Your task to perform on an android device: toggle javascript in the chrome app Image 0: 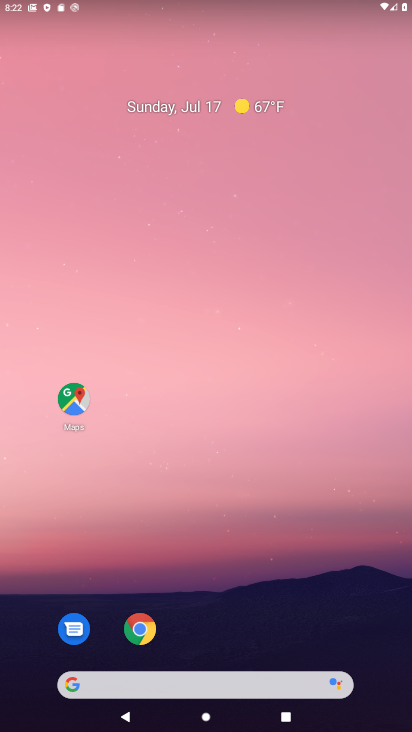
Step 0: click (145, 617)
Your task to perform on an android device: toggle javascript in the chrome app Image 1: 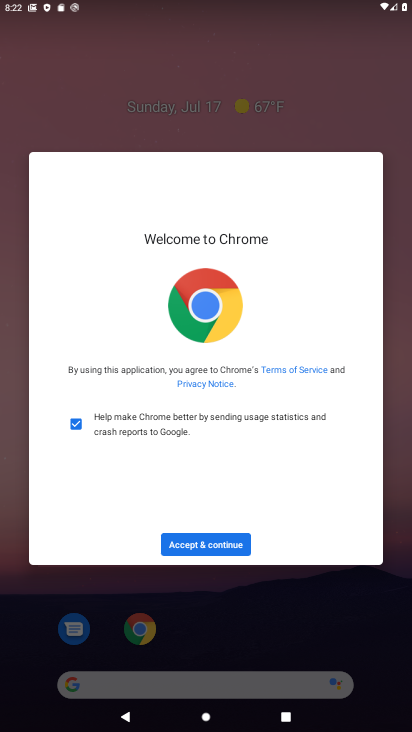
Step 1: click (215, 545)
Your task to perform on an android device: toggle javascript in the chrome app Image 2: 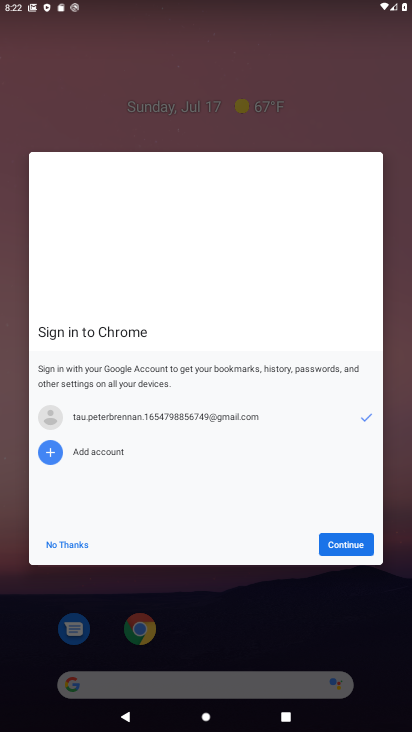
Step 2: click (343, 545)
Your task to perform on an android device: toggle javascript in the chrome app Image 3: 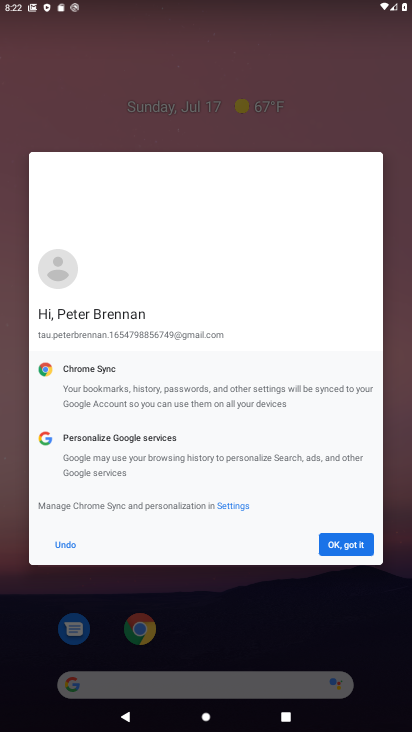
Step 3: click (343, 545)
Your task to perform on an android device: toggle javascript in the chrome app Image 4: 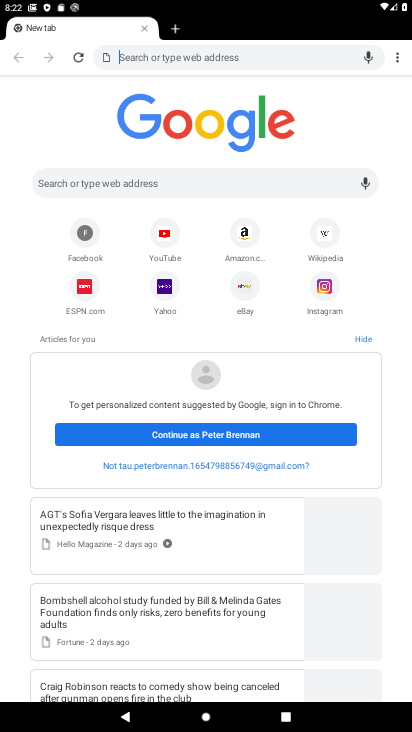
Step 4: click (388, 55)
Your task to perform on an android device: toggle javascript in the chrome app Image 5: 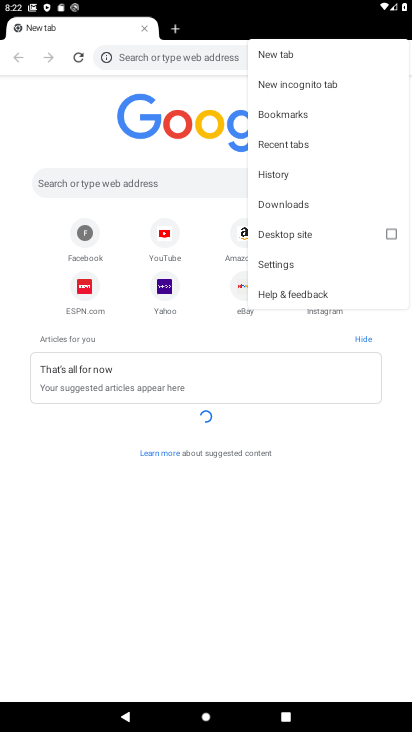
Step 5: click (276, 268)
Your task to perform on an android device: toggle javascript in the chrome app Image 6: 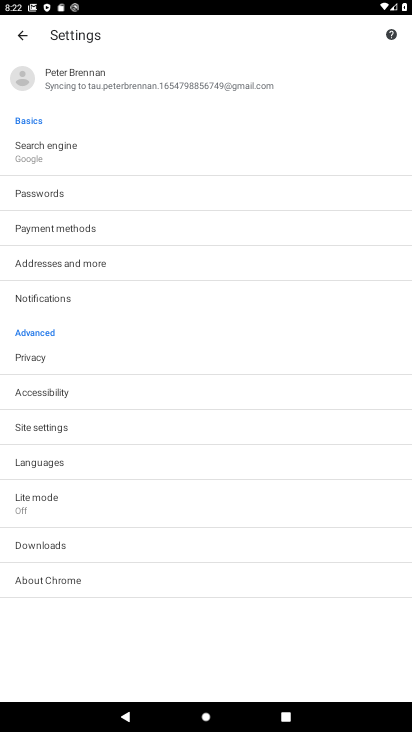
Step 6: click (115, 433)
Your task to perform on an android device: toggle javascript in the chrome app Image 7: 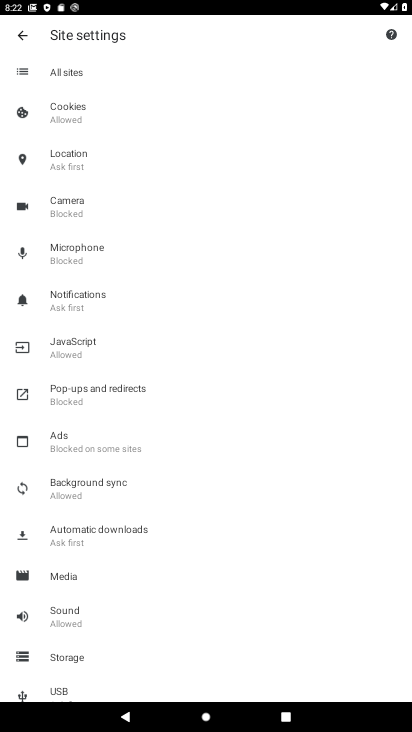
Step 7: click (77, 357)
Your task to perform on an android device: toggle javascript in the chrome app Image 8: 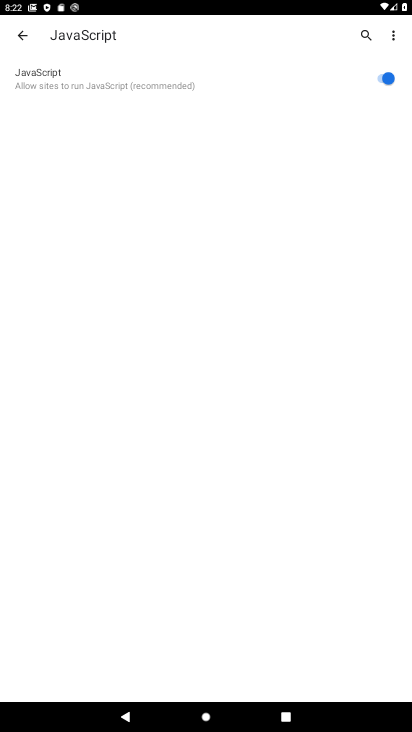
Step 8: click (384, 83)
Your task to perform on an android device: toggle javascript in the chrome app Image 9: 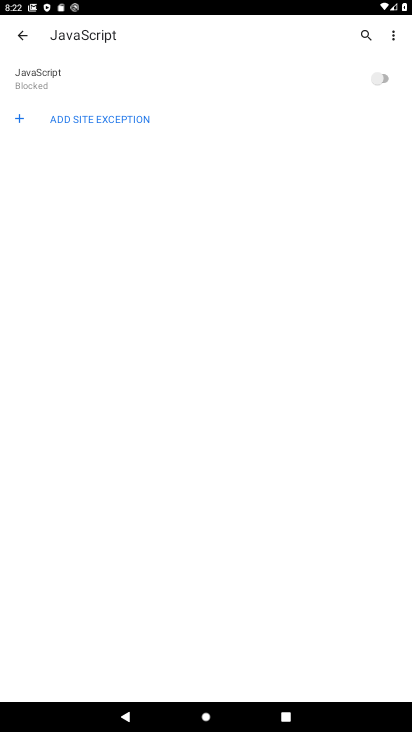
Step 9: task complete